Your task to perform on an android device: open sync settings in chrome Image 0: 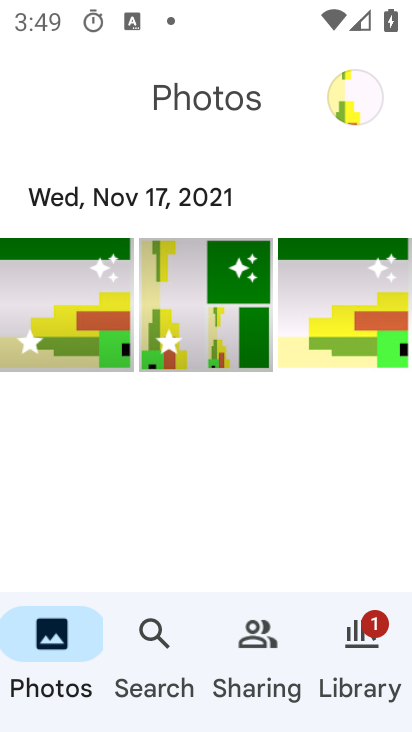
Step 0: press home button
Your task to perform on an android device: open sync settings in chrome Image 1: 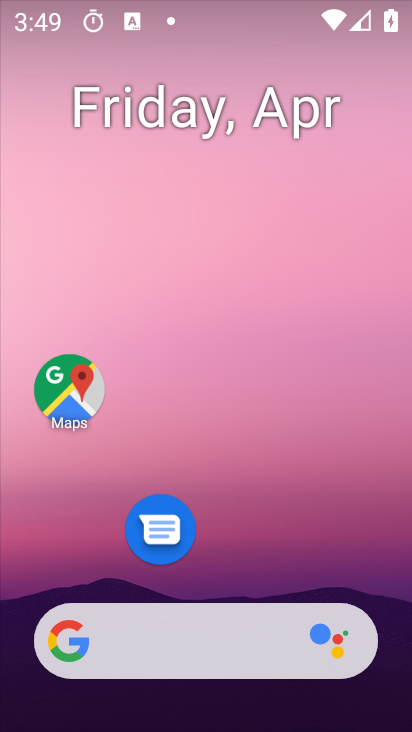
Step 1: drag from (239, 600) to (305, 33)
Your task to perform on an android device: open sync settings in chrome Image 2: 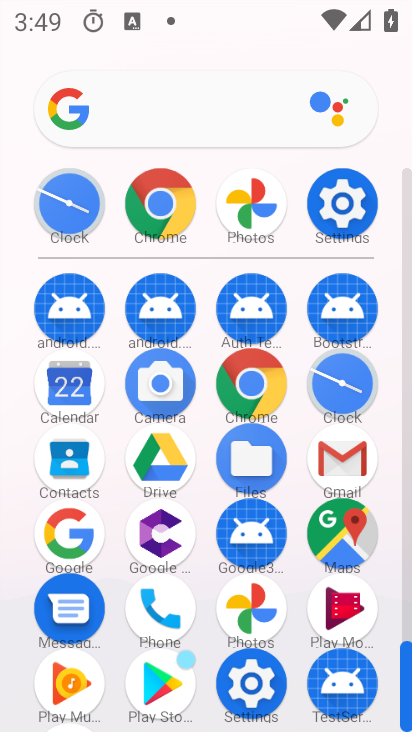
Step 2: click (172, 219)
Your task to perform on an android device: open sync settings in chrome Image 3: 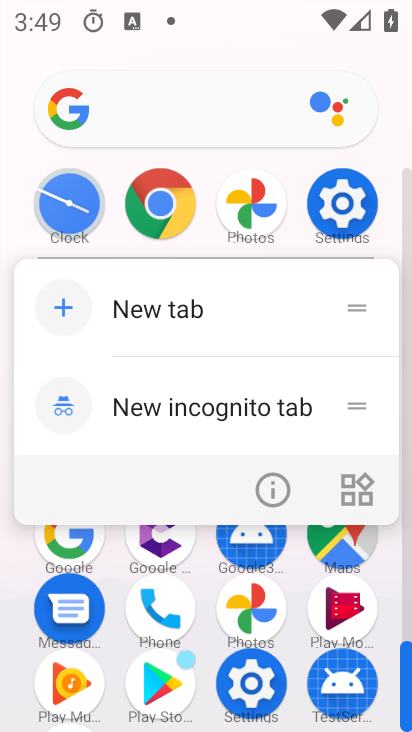
Step 3: click (172, 219)
Your task to perform on an android device: open sync settings in chrome Image 4: 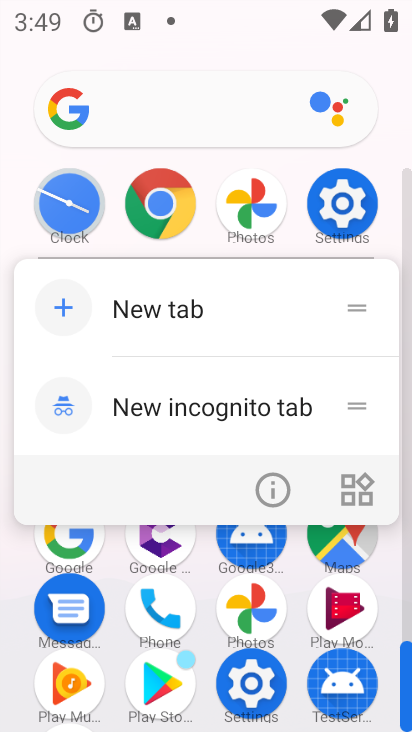
Step 4: click (172, 219)
Your task to perform on an android device: open sync settings in chrome Image 5: 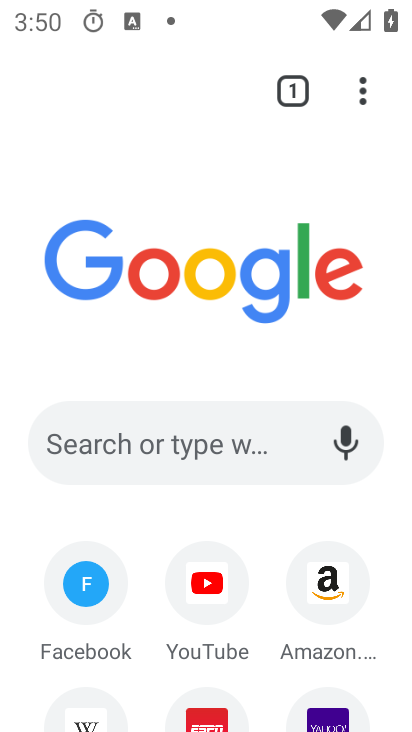
Step 5: click (371, 107)
Your task to perform on an android device: open sync settings in chrome Image 6: 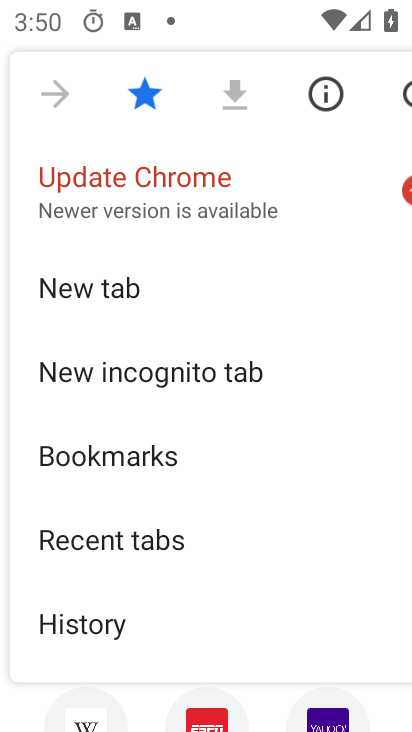
Step 6: drag from (170, 479) to (201, 205)
Your task to perform on an android device: open sync settings in chrome Image 7: 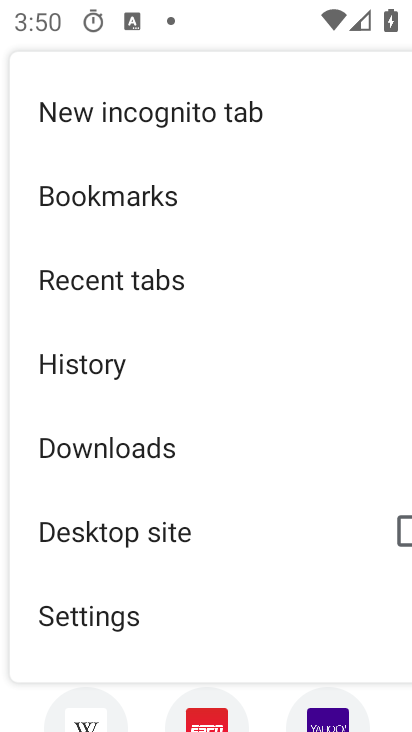
Step 7: drag from (180, 456) to (208, 203)
Your task to perform on an android device: open sync settings in chrome Image 8: 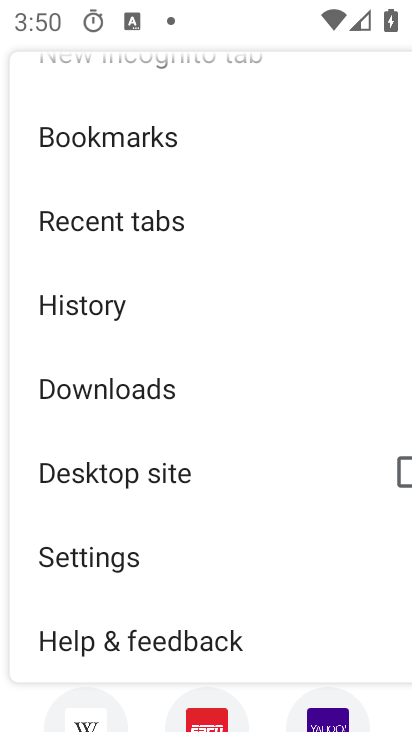
Step 8: click (155, 549)
Your task to perform on an android device: open sync settings in chrome Image 9: 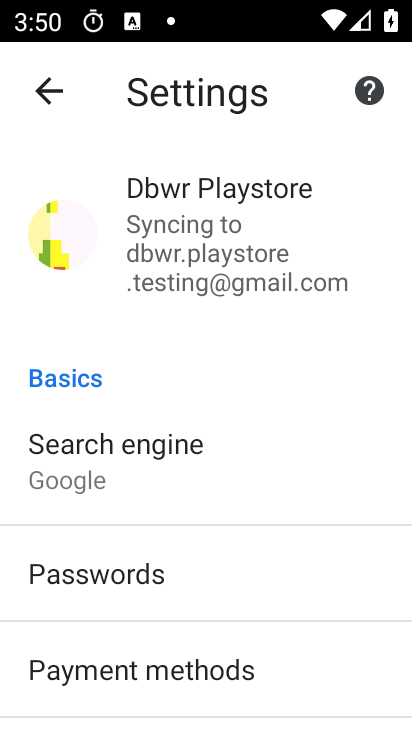
Step 9: click (235, 288)
Your task to perform on an android device: open sync settings in chrome Image 10: 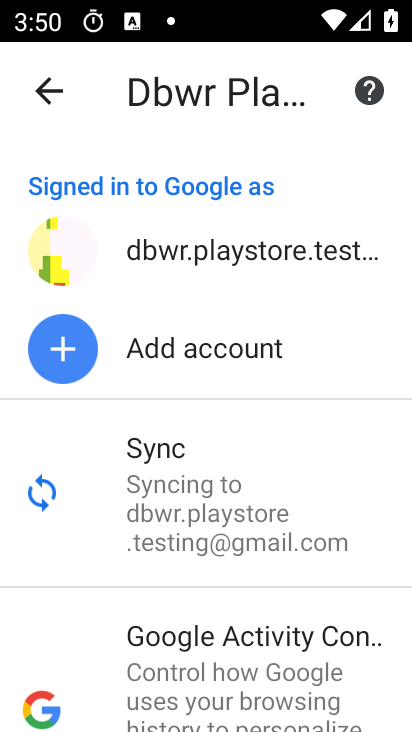
Step 10: click (200, 490)
Your task to perform on an android device: open sync settings in chrome Image 11: 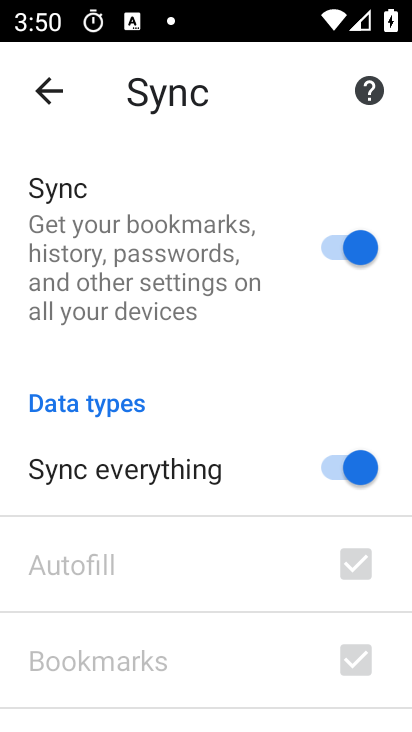
Step 11: task complete